Your task to perform on an android device: turn off sleep mode Image 0: 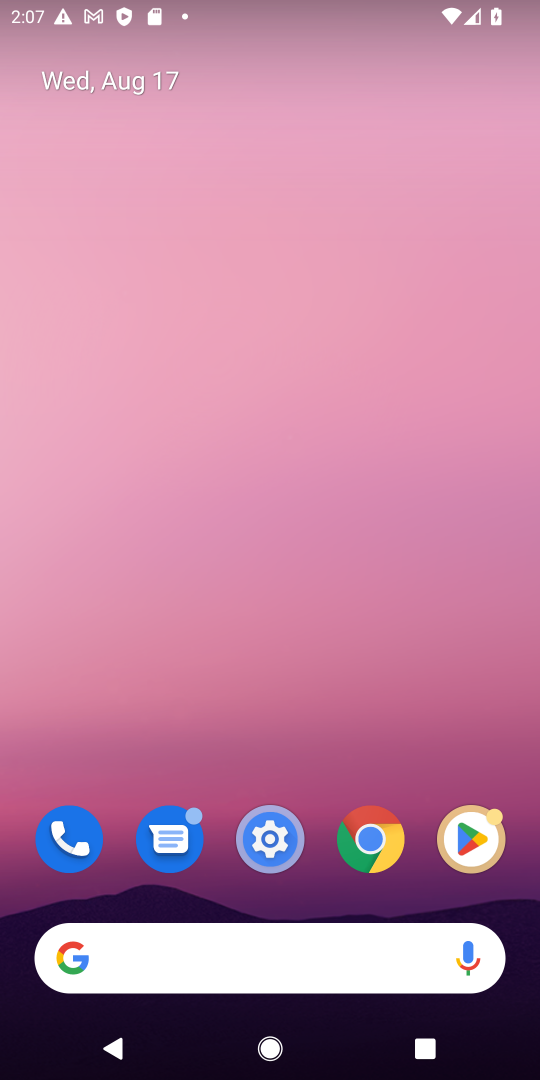
Step 0: drag from (322, 887) to (322, 49)
Your task to perform on an android device: turn off sleep mode Image 1: 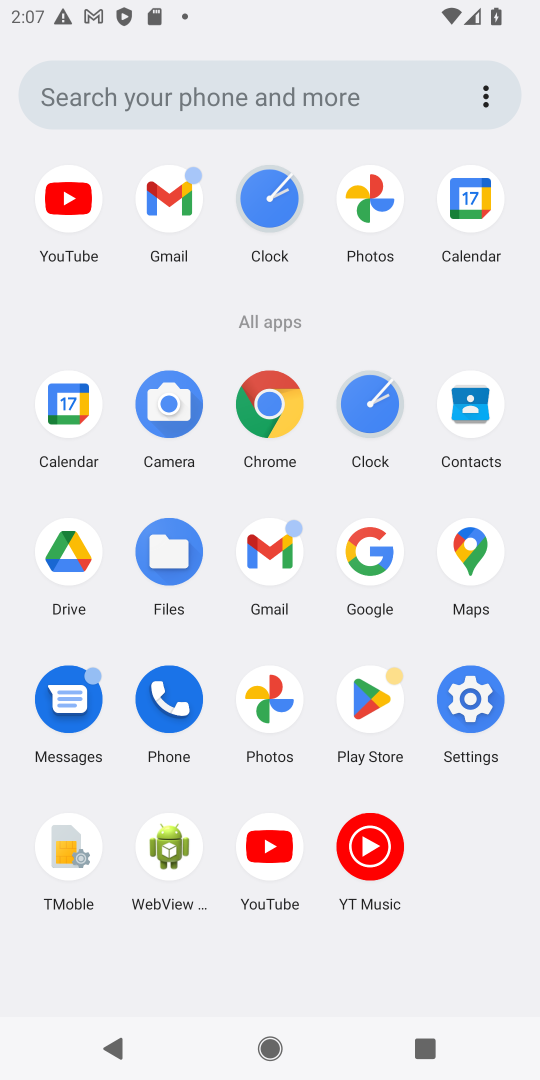
Step 1: click (477, 702)
Your task to perform on an android device: turn off sleep mode Image 2: 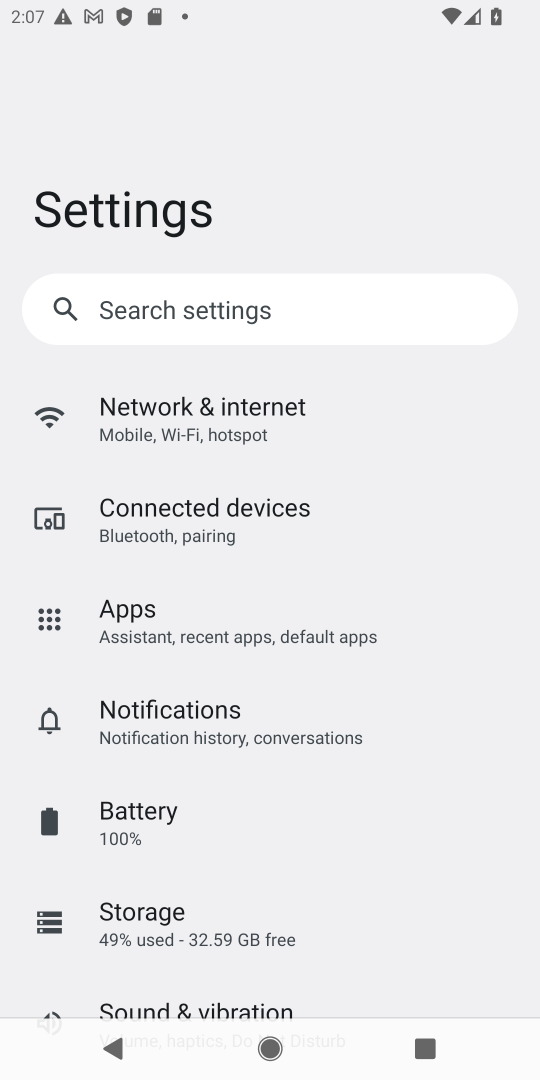
Step 2: task complete